Your task to perform on an android device: Set the phone to "Do not disturb". Image 0: 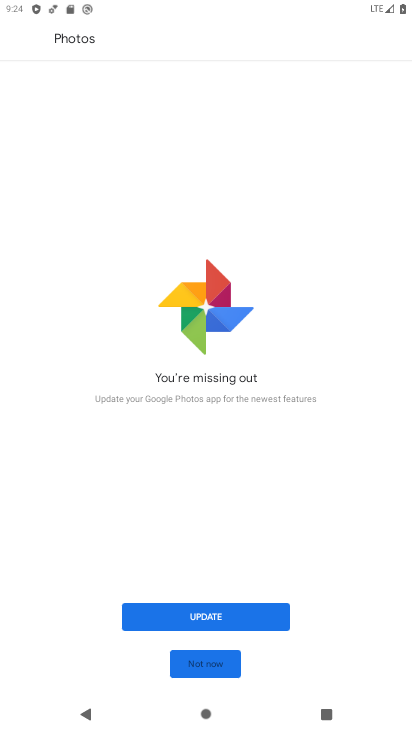
Step 0: press home button
Your task to perform on an android device: Set the phone to "Do not disturb". Image 1: 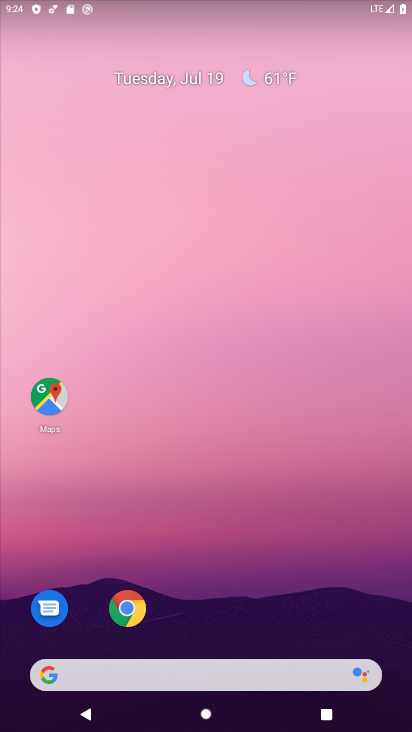
Step 1: drag from (287, 585) to (147, 150)
Your task to perform on an android device: Set the phone to "Do not disturb". Image 2: 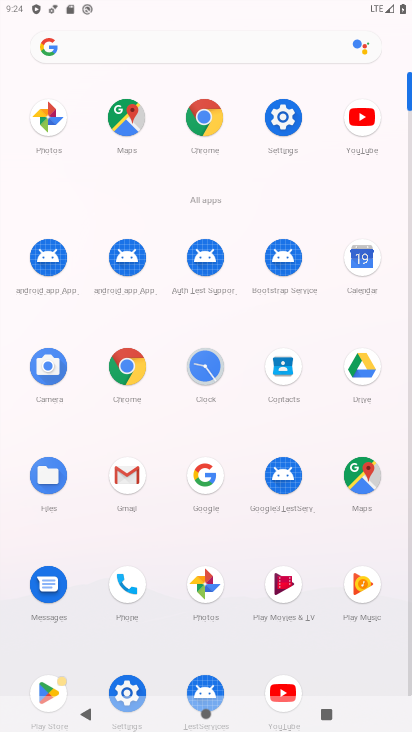
Step 2: click (283, 118)
Your task to perform on an android device: Set the phone to "Do not disturb". Image 3: 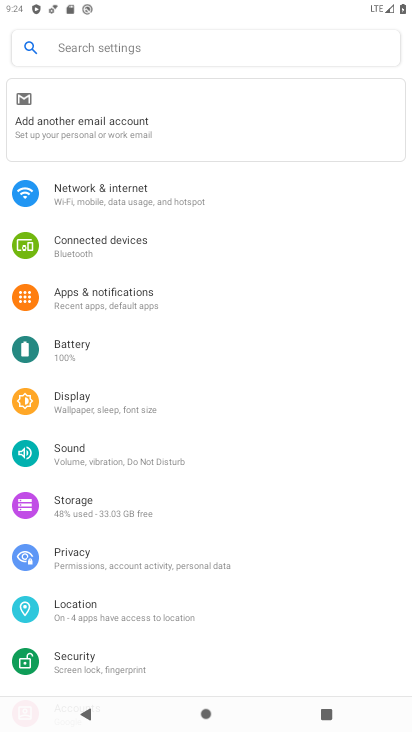
Step 3: click (83, 454)
Your task to perform on an android device: Set the phone to "Do not disturb". Image 4: 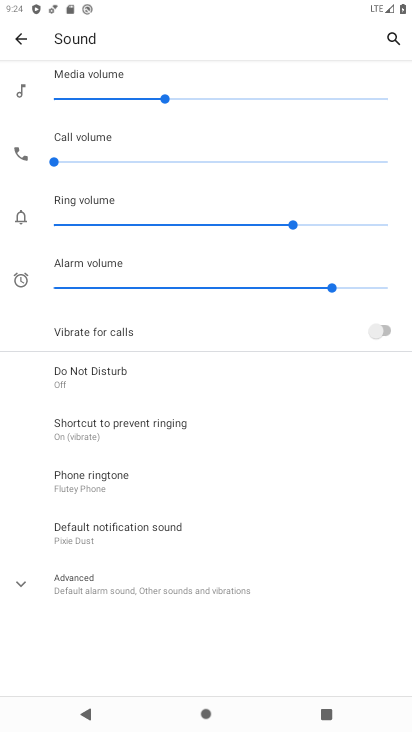
Step 4: click (75, 361)
Your task to perform on an android device: Set the phone to "Do not disturb". Image 5: 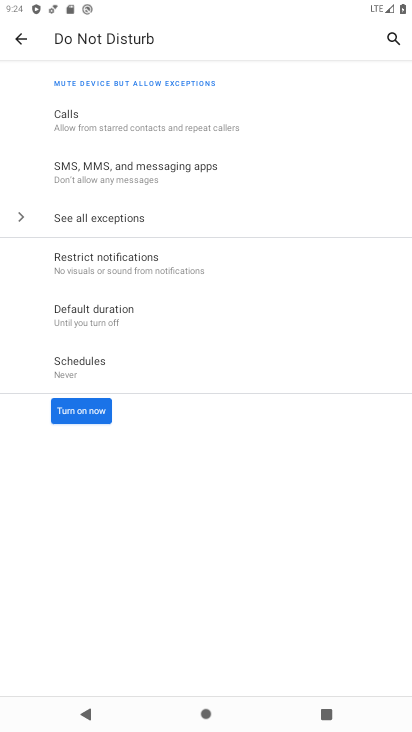
Step 5: click (96, 413)
Your task to perform on an android device: Set the phone to "Do not disturb". Image 6: 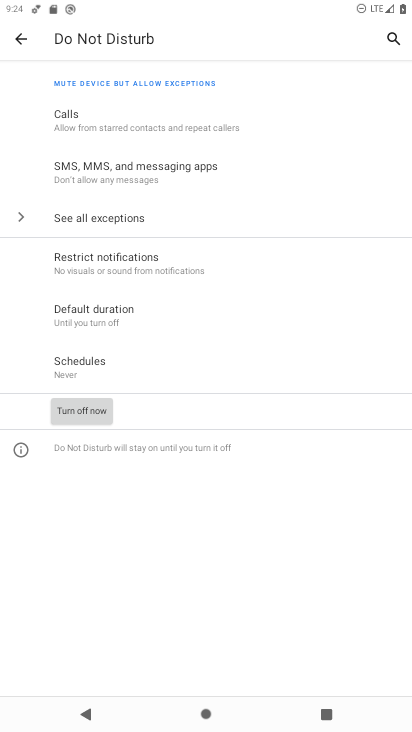
Step 6: task complete